Your task to perform on an android device: Open Google Chrome and open the bookmarks view Image 0: 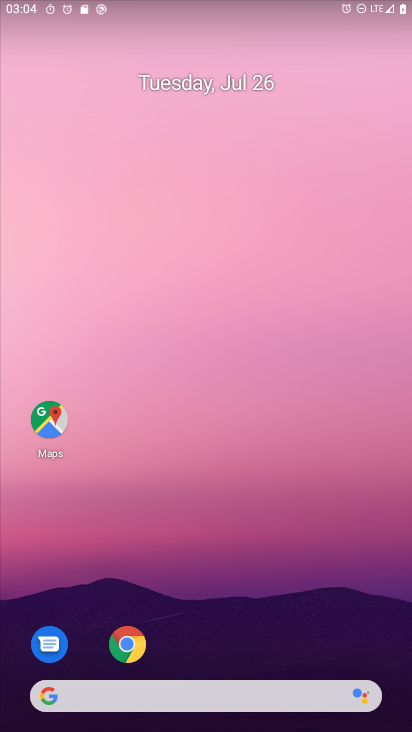
Step 0: click (138, 644)
Your task to perform on an android device: Open Google Chrome and open the bookmarks view Image 1: 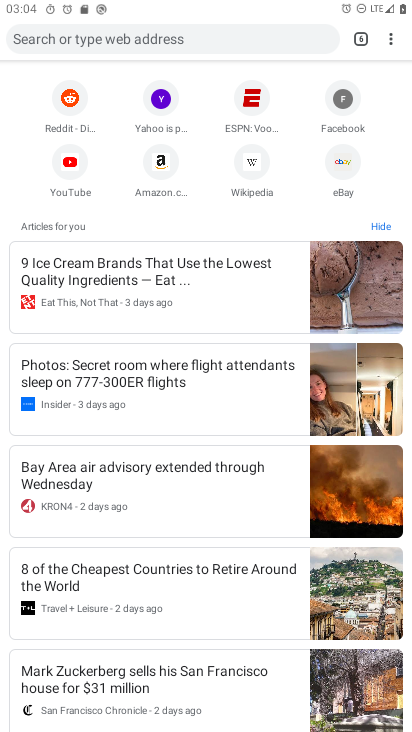
Step 1: task complete